Your task to perform on an android device: toggle translation in the chrome app Image 0: 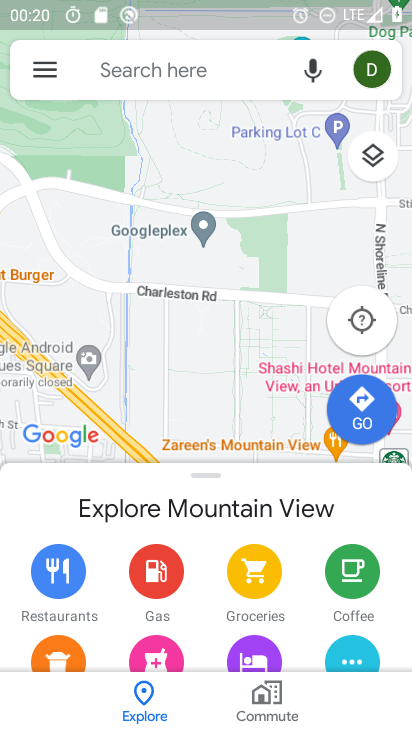
Step 0: press home button
Your task to perform on an android device: toggle translation in the chrome app Image 1: 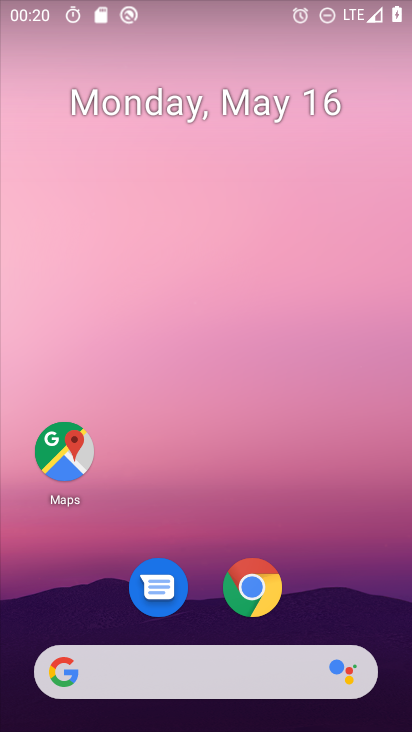
Step 1: click (254, 596)
Your task to perform on an android device: toggle translation in the chrome app Image 2: 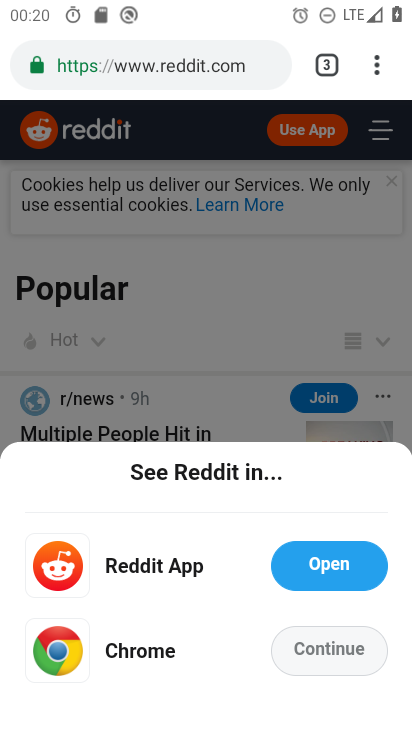
Step 2: click (370, 70)
Your task to perform on an android device: toggle translation in the chrome app Image 3: 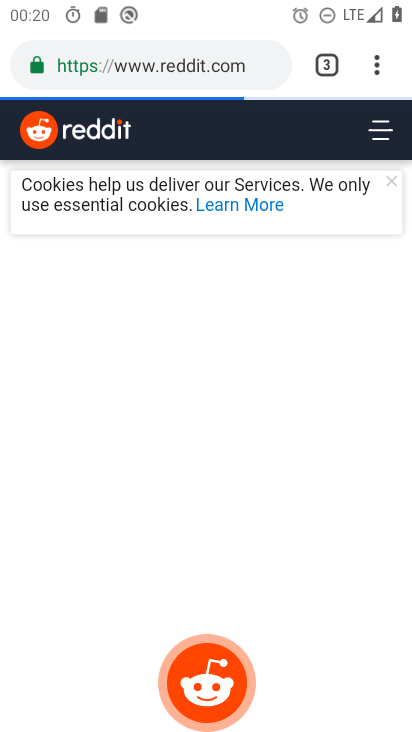
Step 3: click (375, 74)
Your task to perform on an android device: toggle translation in the chrome app Image 4: 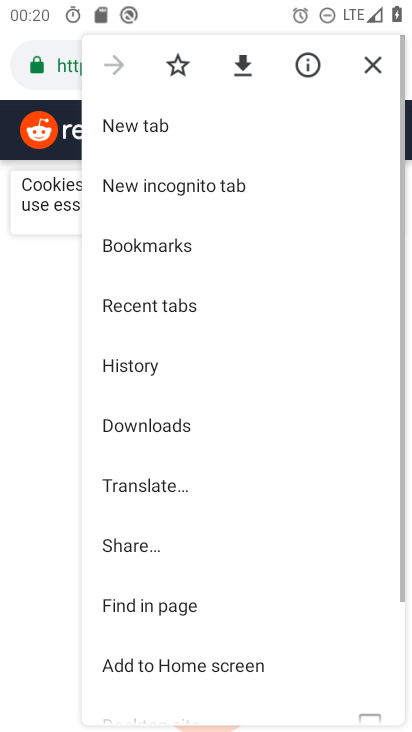
Step 4: drag from (236, 637) to (282, 379)
Your task to perform on an android device: toggle translation in the chrome app Image 5: 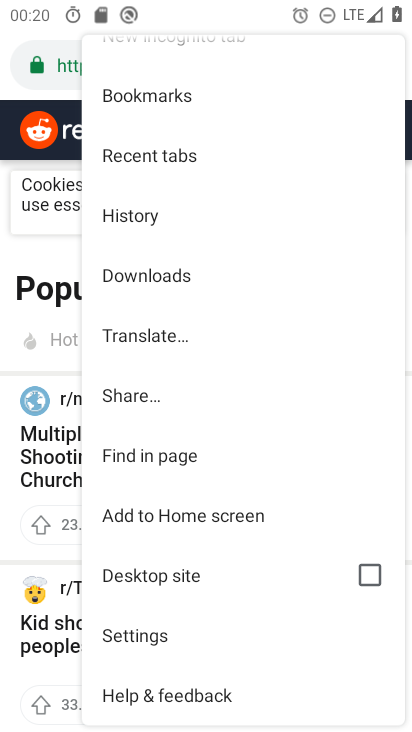
Step 5: drag from (222, 631) to (252, 478)
Your task to perform on an android device: toggle translation in the chrome app Image 6: 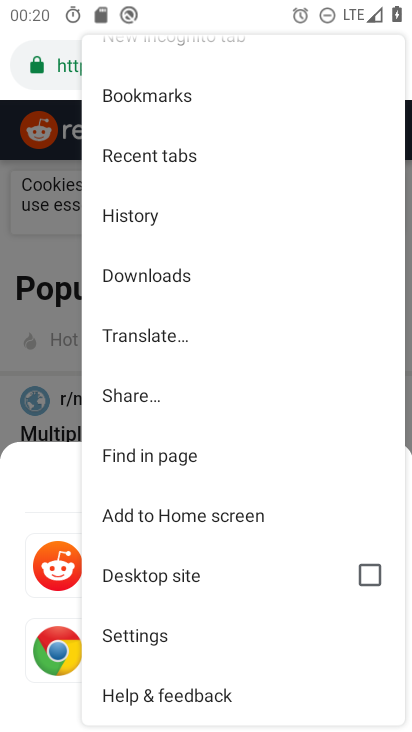
Step 6: click (187, 635)
Your task to perform on an android device: toggle translation in the chrome app Image 7: 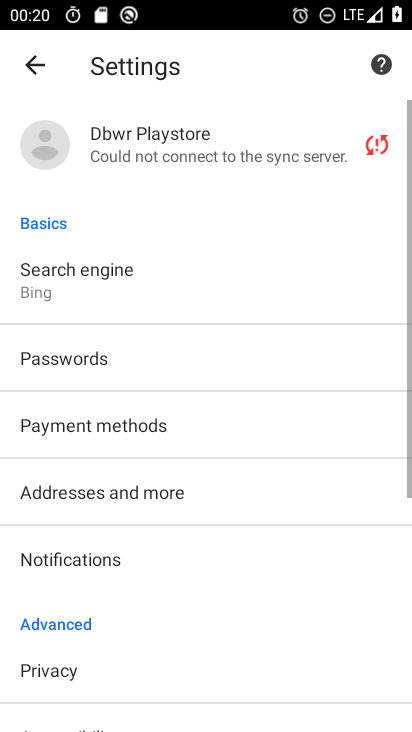
Step 7: drag from (225, 602) to (243, 334)
Your task to perform on an android device: toggle translation in the chrome app Image 8: 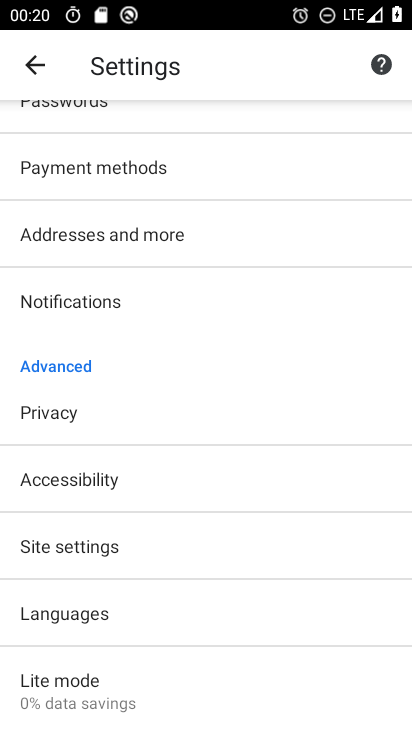
Step 8: click (214, 601)
Your task to perform on an android device: toggle translation in the chrome app Image 9: 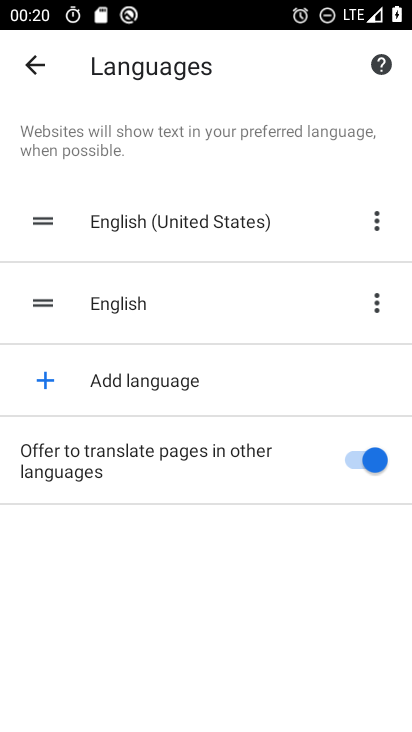
Step 9: click (359, 457)
Your task to perform on an android device: toggle translation in the chrome app Image 10: 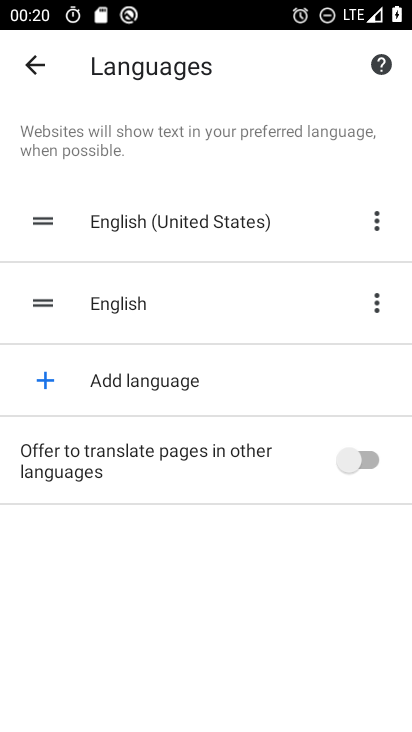
Step 10: task complete